Your task to perform on an android device: Open the calendar app, open the side menu, and click the "Day" option Image 0: 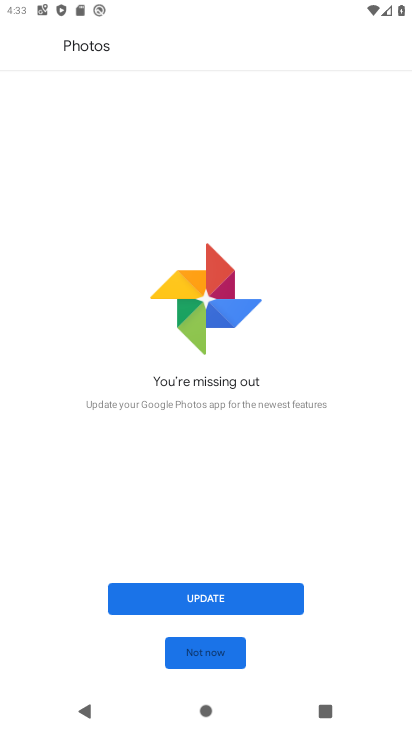
Step 0: press home button
Your task to perform on an android device: Open the calendar app, open the side menu, and click the "Day" option Image 1: 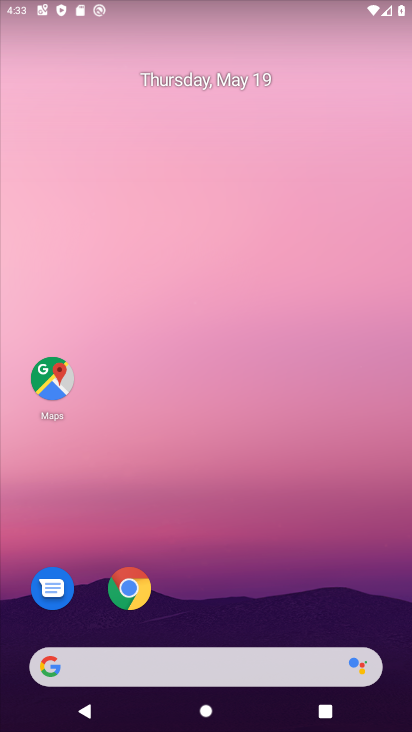
Step 1: click (201, 74)
Your task to perform on an android device: Open the calendar app, open the side menu, and click the "Day" option Image 2: 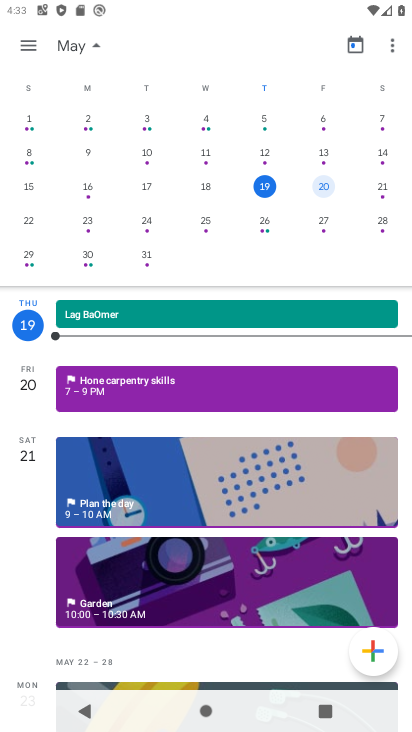
Step 2: click (26, 45)
Your task to perform on an android device: Open the calendar app, open the side menu, and click the "Day" option Image 3: 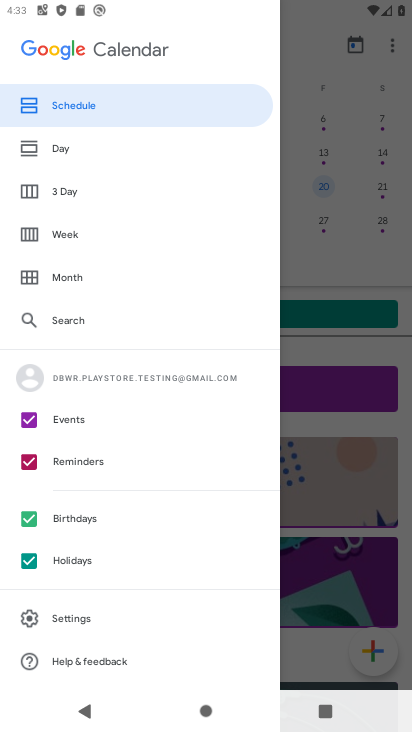
Step 3: click (92, 146)
Your task to perform on an android device: Open the calendar app, open the side menu, and click the "Day" option Image 4: 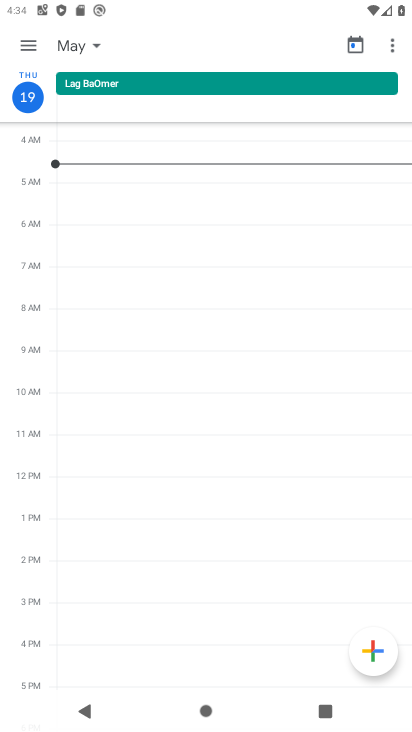
Step 4: task complete